Your task to perform on an android device: turn on airplane mode Image 0: 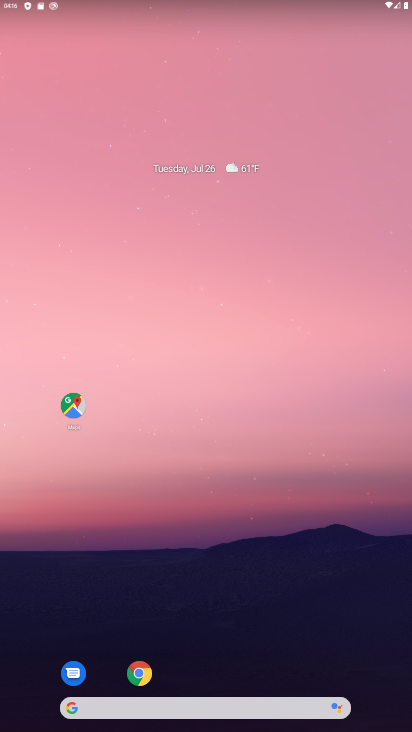
Step 0: drag from (233, 8) to (299, 470)
Your task to perform on an android device: turn on airplane mode Image 1: 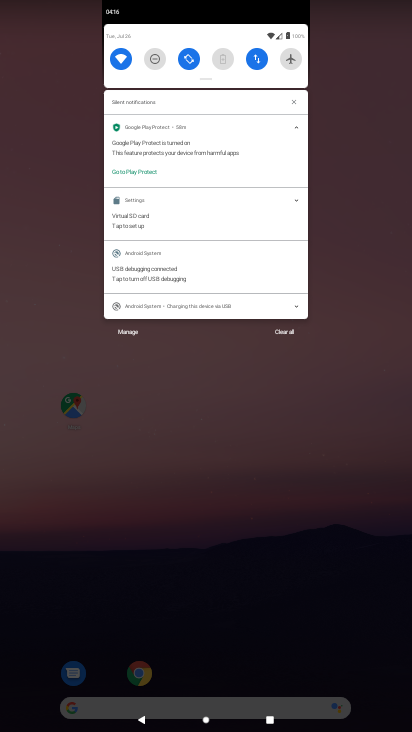
Step 1: click (289, 57)
Your task to perform on an android device: turn on airplane mode Image 2: 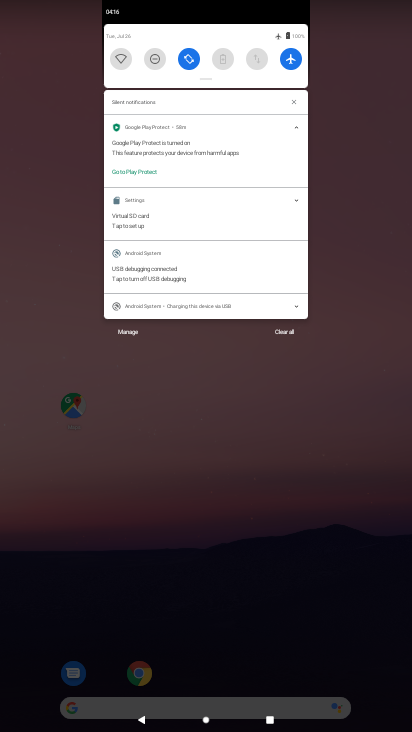
Step 2: task complete